Your task to perform on an android device: set the timer Image 0: 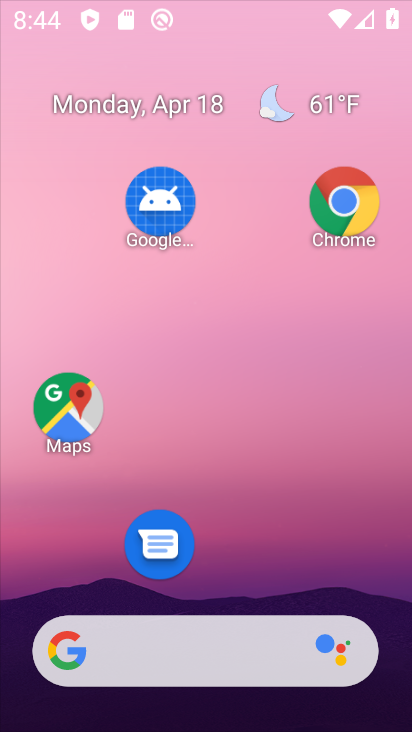
Step 0: click (233, 658)
Your task to perform on an android device: set the timer Image 1: 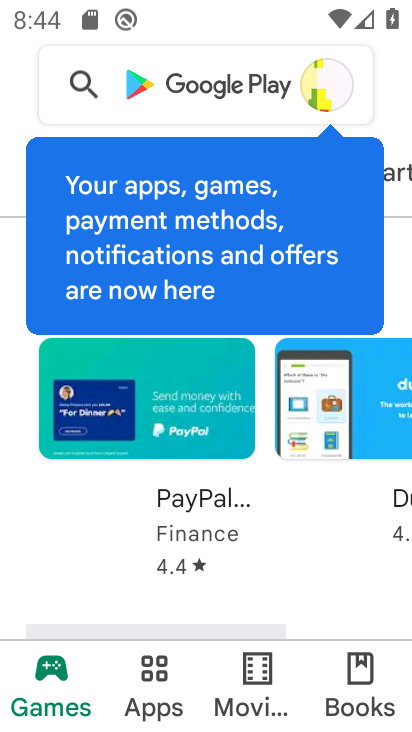
Step 1: press home button
Your task to perform on an android device: set the timer Image 2: 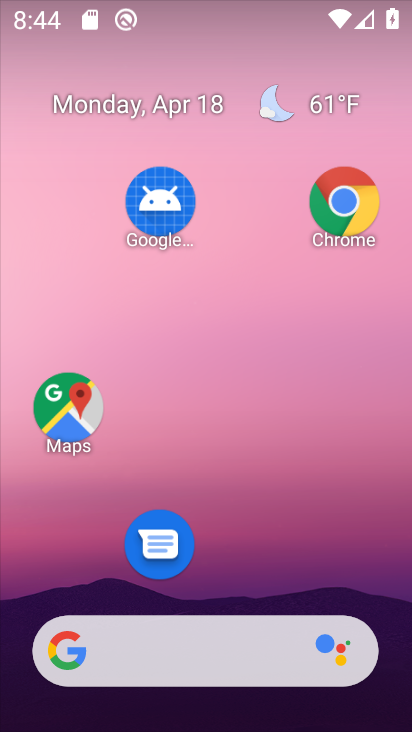
Step 2: drag from (229, 601) to (358, 47)
Your task to perform on an android device: set the timer Image 3: 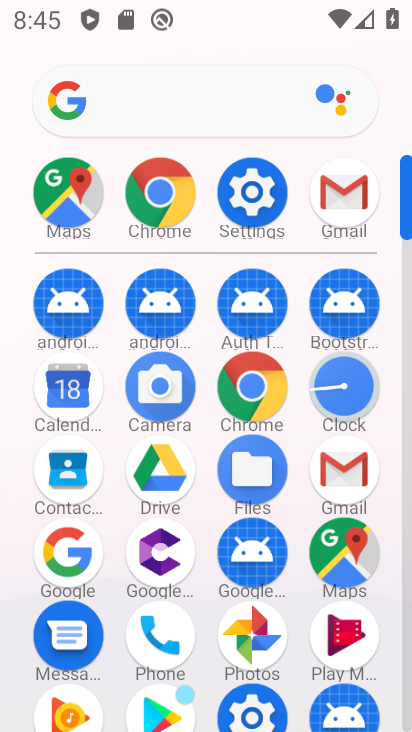
Step 3: click (356, 405)
Your task to perform on an android device: set the timer Image 4: 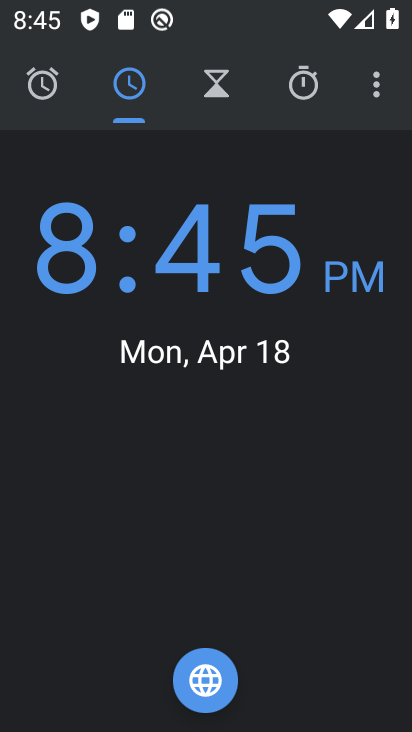
Step 4: click (219, 75)
Your task to perform on an android device: set the timer Image 5: 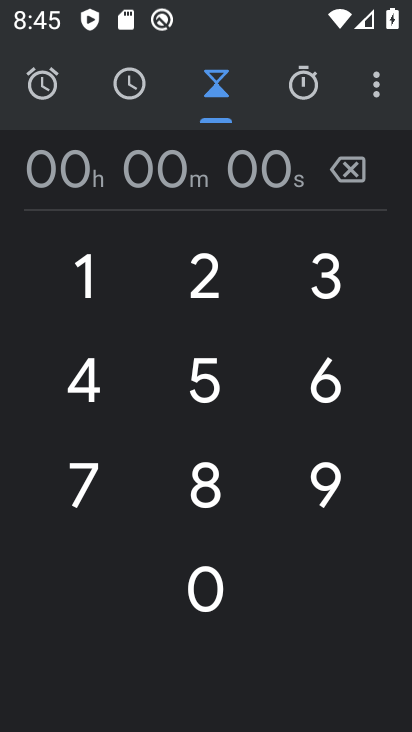
Step 5: click (231, 270)
Your task to perform on an android device: set the timer Image 6: 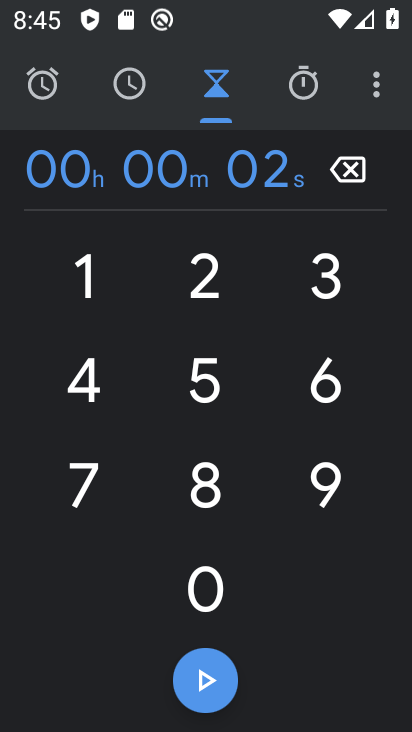
Step 6: click (215, 354)
Your task to perform on an android device: set the timer Image 7: 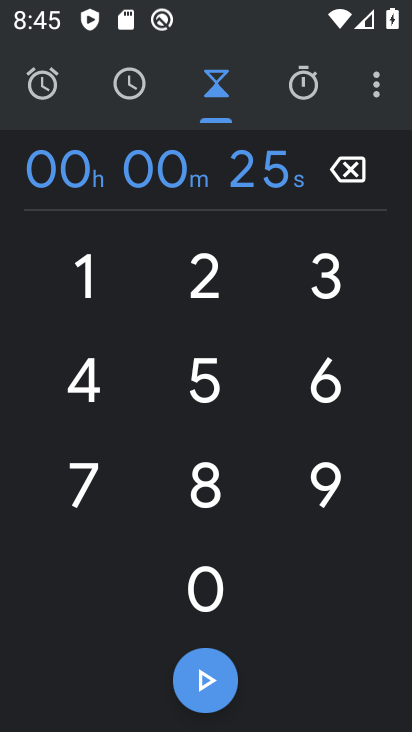
Step 7: task complete